Your task to perform on an android device: show emergency info Image 0: 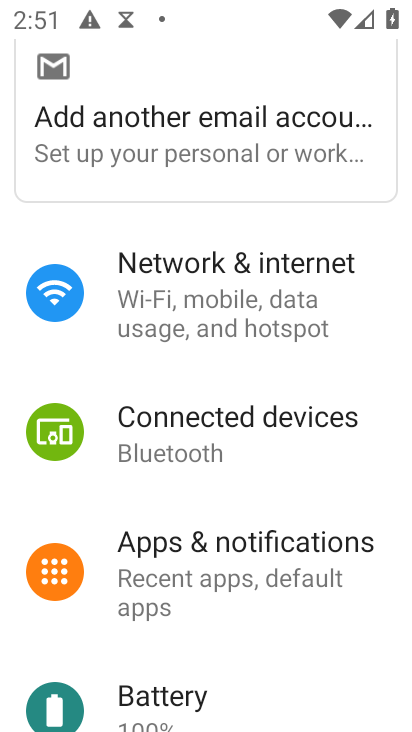
Step 0: press home button
Your task to perform on an android device: show emergency info Image 1: 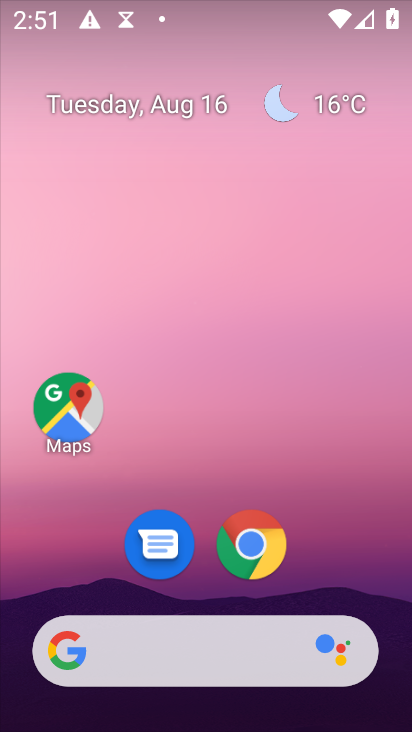
Step 1: drag from (148, 677) to (264, 41)
Your task to perform on an android device: show emergency info Image 2: 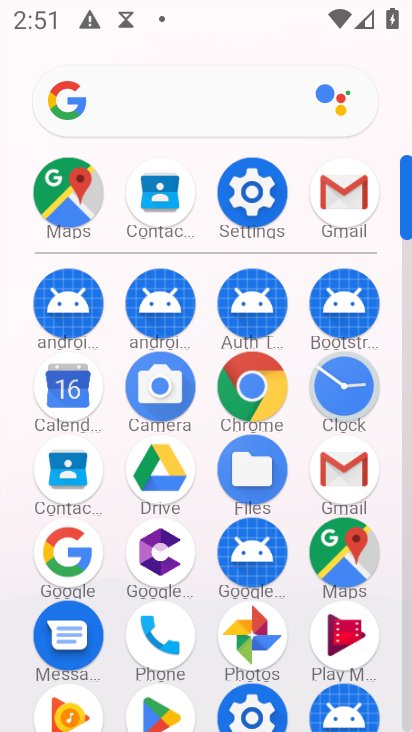
Step 2: click (250, 193)
Your task to perform on an android device: show emergency info Image 3: 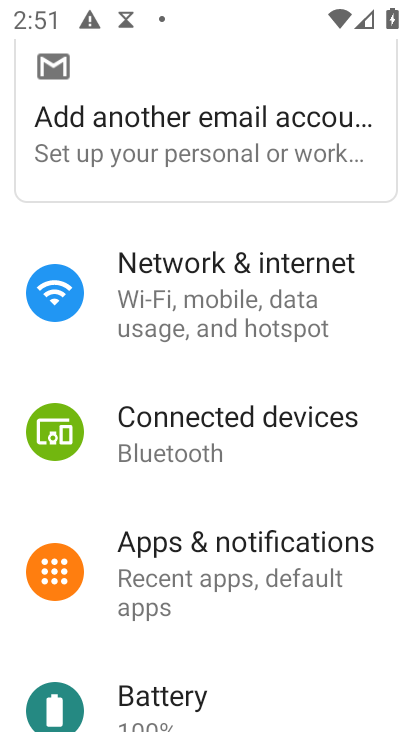
Step 3: drag from (201, 611) to (283, 491)
Your task to perform on an android device: show emergency info Image 4: 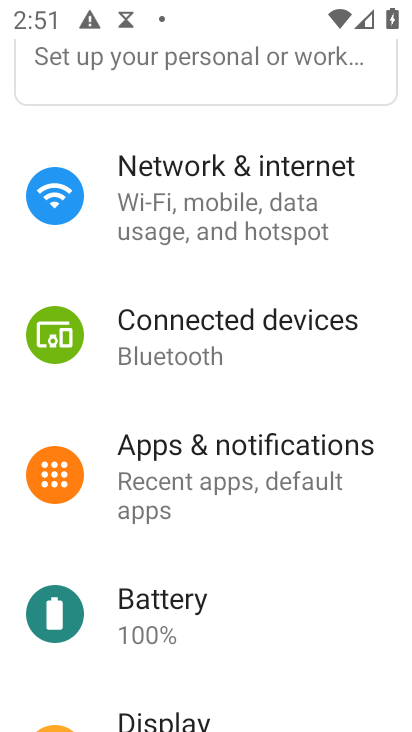
Step 4: drag from (180, 650) to (263, 460)
Your task to perform on an android device: show emergency info Image 5: 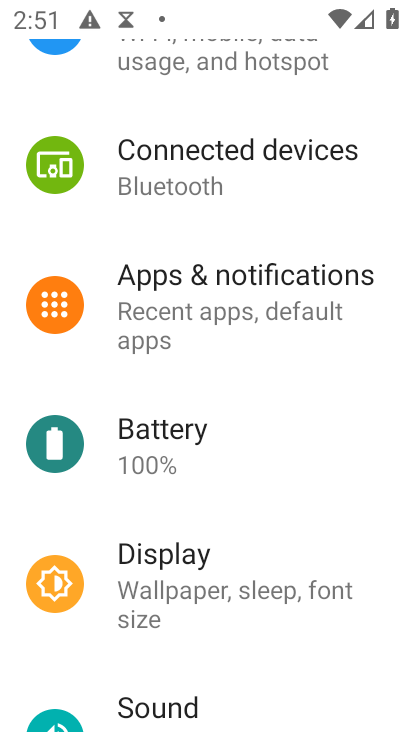
Step 5: drag from (194, 632) to (242, 413)
Your task to perform on an android device: show emergency info Image 6: 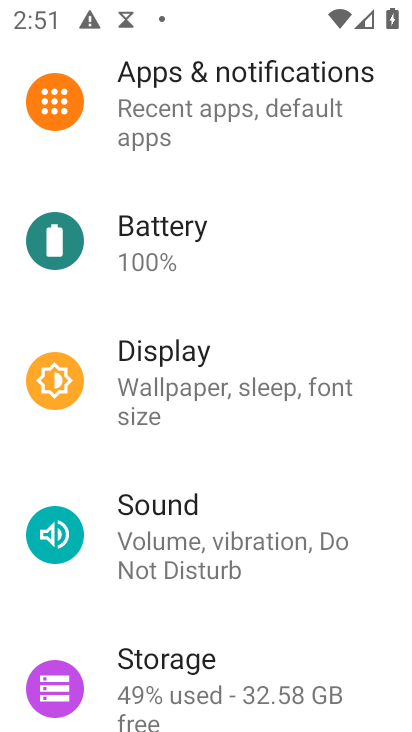
Step 6: drag from (162, 617) to (281, 416)
Your task to perform on an android device: show emergency info Image 7: 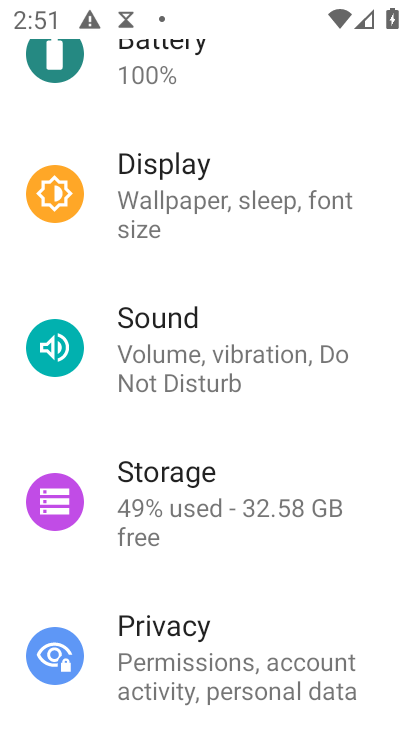
Step 7: drag from (171, 569) to (276, 341)
Your task to perform on an android device: show emergency info Image 8: 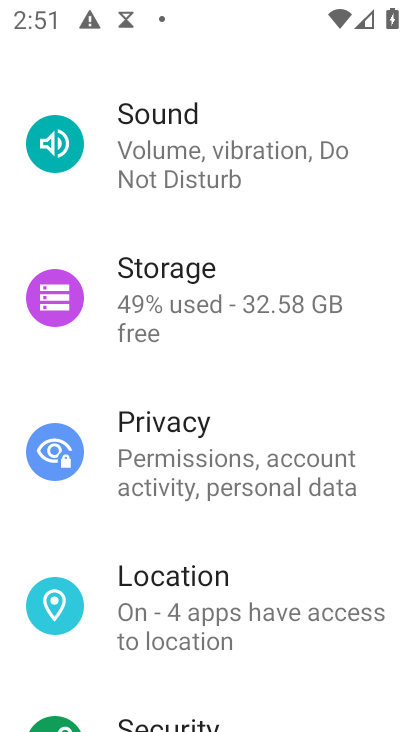
Step 8: drag from (165, 549) to (251, 399)
Your task to perform on an android device: show emergency info Image 9: 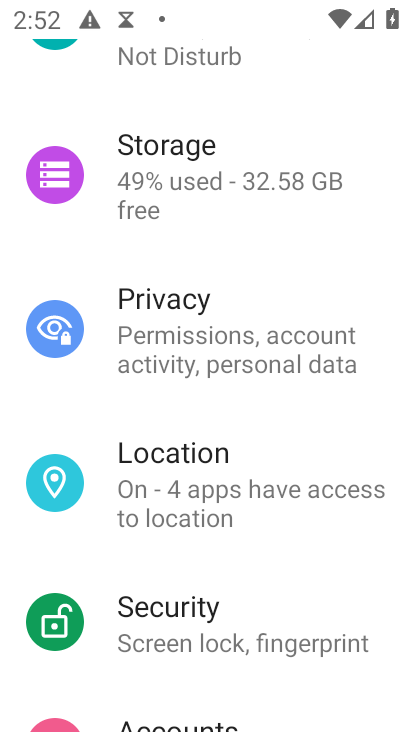
Step 9: drag from (193, 571) to (259, 425)
Your task to perform on an android device: show emergency info Image 10: 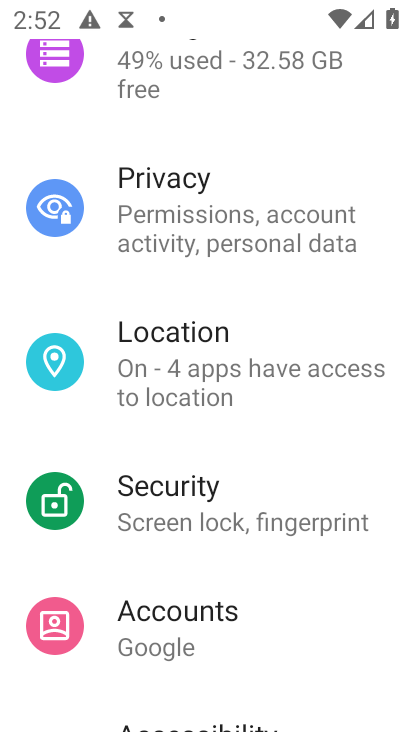
Step 10: drag from (164, 568) to (224, 412)
Your task to perform on an android device: show emergency info Image 11: 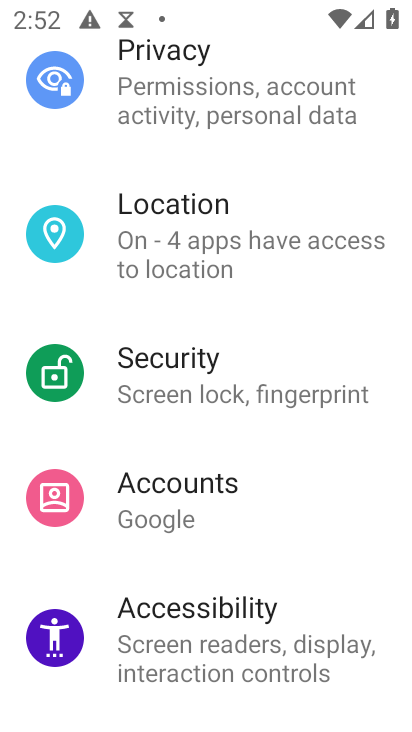
Step 11: drag from (172, 561) to (217, 379)
Your task to perform on an android device: show emergency info Image 12: 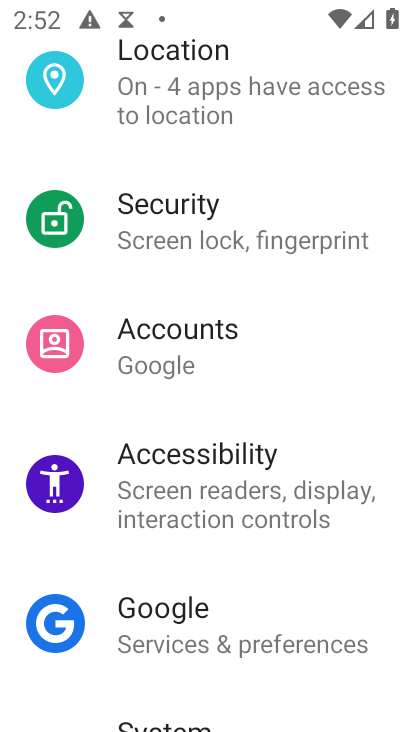
Step 12: drag from (159, 563) to (232, 397)
Your task to perform on an android device: show emergency info Image 13: 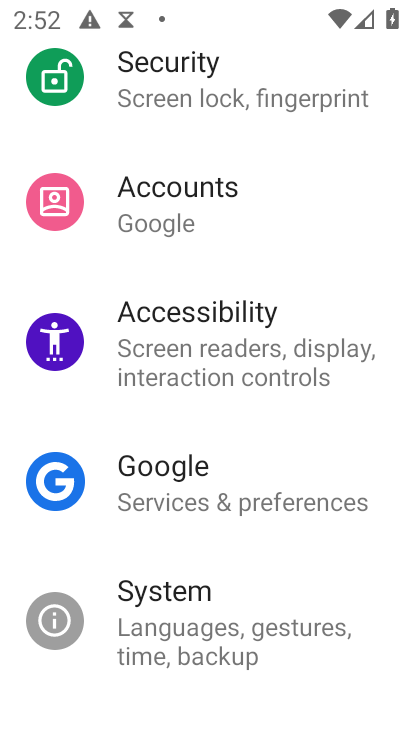
Step 13: drag from (171, 557) to (217, 337)
Your task to perform on an android device: show emergency info Image 14: 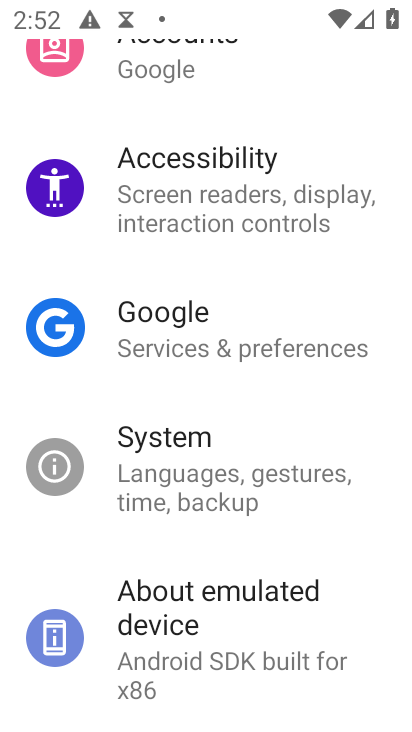
Step 14: click (195, 589)
Your task to perform on an android device: show emergency info Image 15: 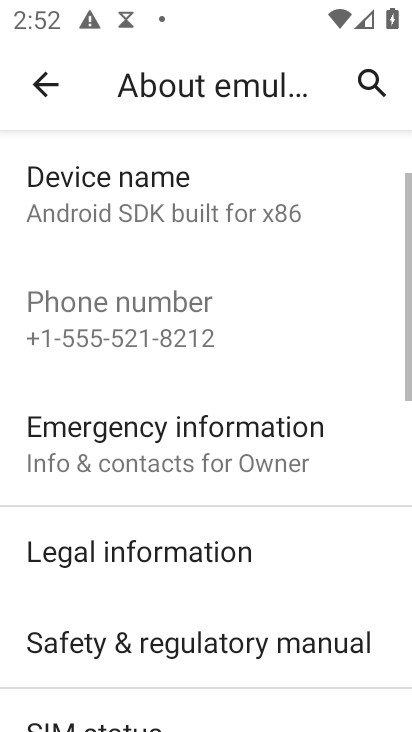
Step 15: click (180, 423)
Your task to perform on an android device: show emergency info Image 16: 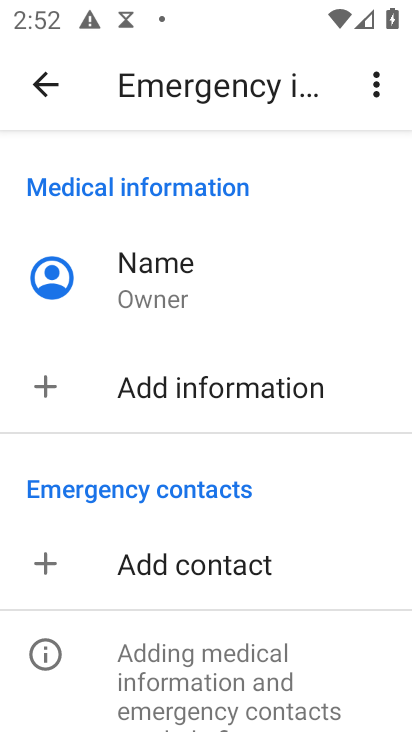
Step 16: task complete